Your task to perform on an android device: Go to Reddit.com Image 0: 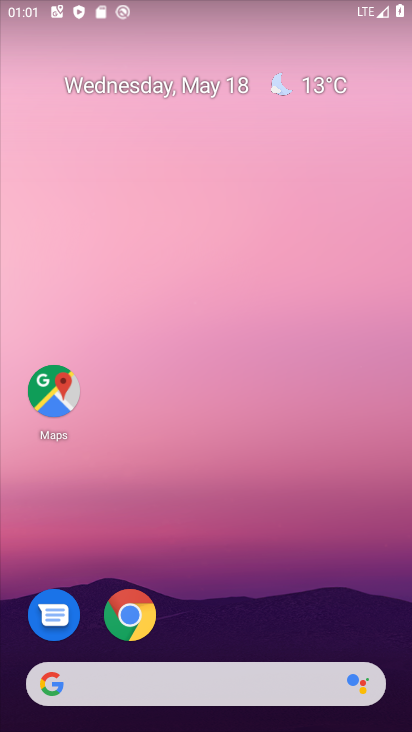
Step 0: click (135, 610)
Your task to perform on an android device: Go to Reddit.com Image 1: 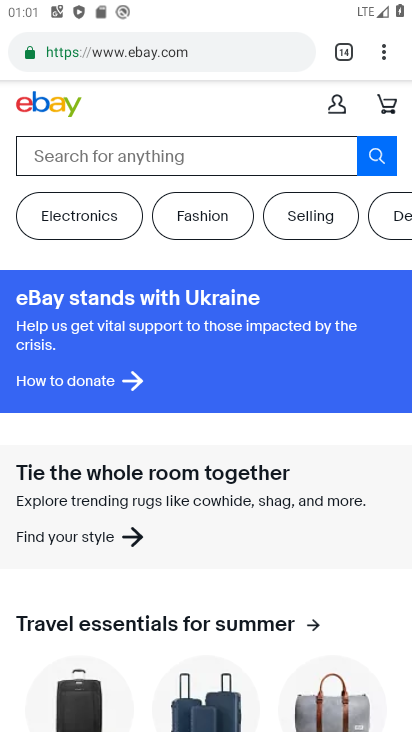
Step 1: drag from (381, 57) to (303, 107)
Your task to perform on an android device: Go to Reddit.com Image 2: 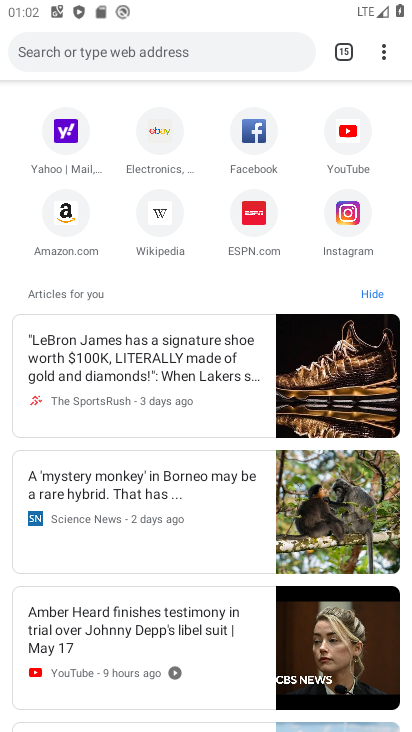
Step 2: click (133, 46)
Your task to perform on an android device: Go to Reddit.com Image 3: 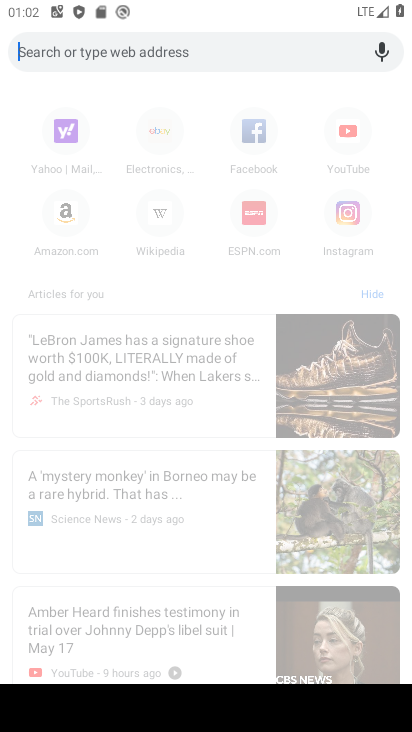
Step 3: type "reddit.com"
Your task to perform on an android device: Go to Reddit.com Image 4: 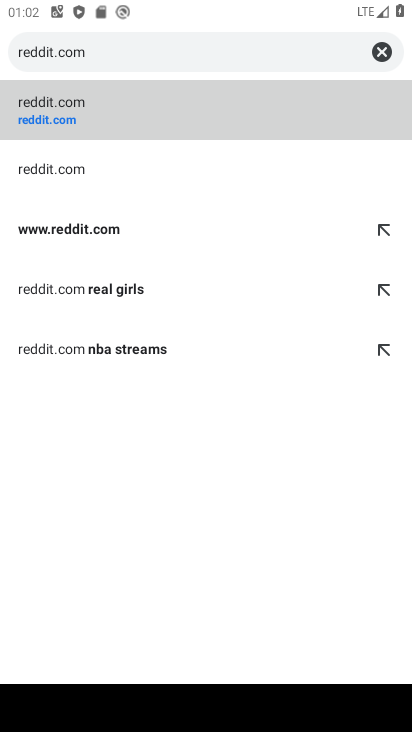
Step 4: click (80, 115)
Your task to perform on an android device: Go to Reddit.com Image 5: 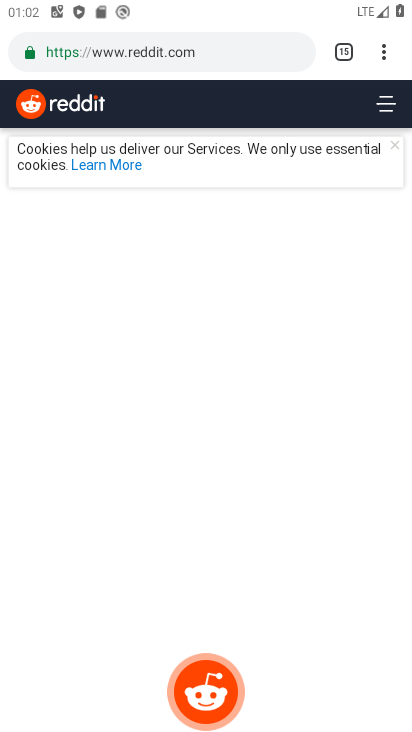
Step 5: task complete